Your task to perform on an android device: toggle improve location accuracy Image 0: 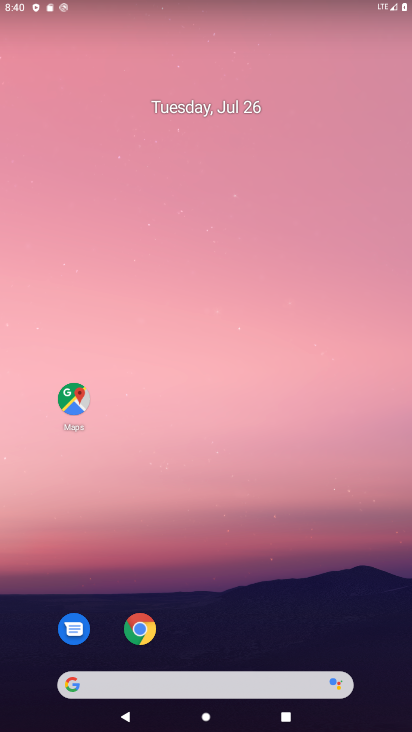
Step 0: drag from (211, 646) to (204, 105)
Your task to perform on an android device: toggle improve location accuracy Image 1: 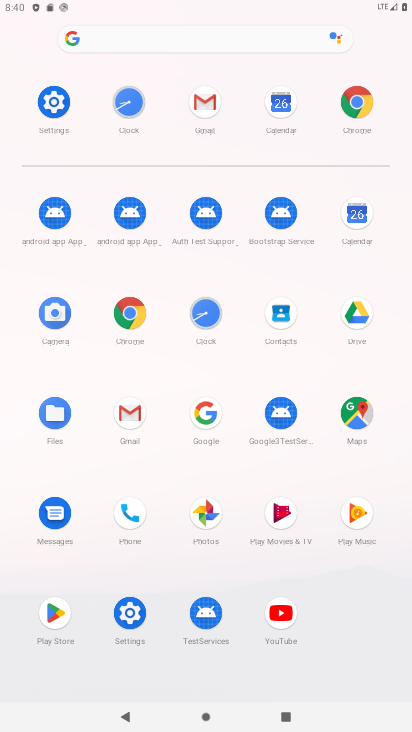
Step 1: click (60, 117)
Your task to perform on an android device: toggle improve location accuracy Image 2: 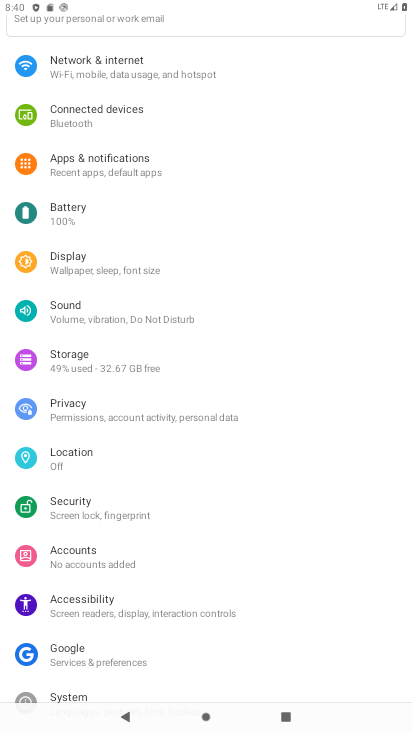
Step 2: click (113, 459)
Your task to perform on an android device: toggle improve location accuracy Image 3: 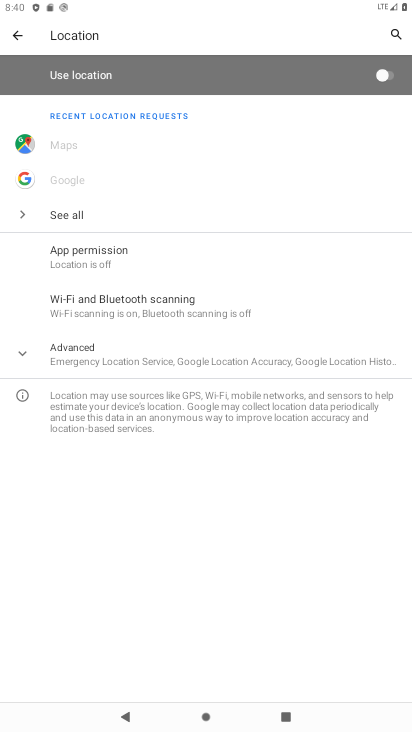
Step 3: click (186, 346)
Your task to perform on an android device: toggle improve location accuracy Image 4: 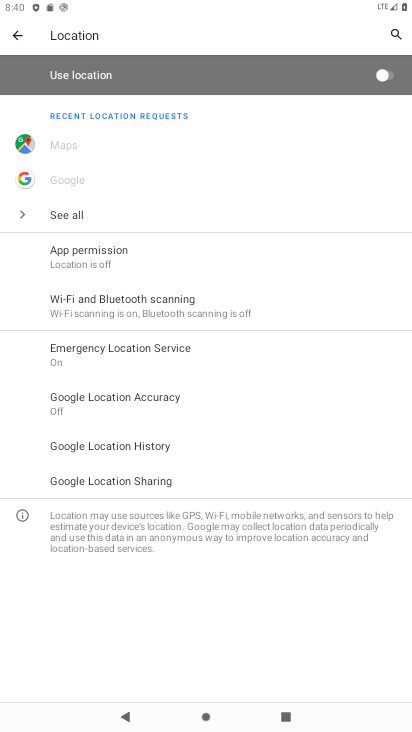
Step 4: click (144, 399)
Your task to perform on an android device: toggle improve location accuracy Image 5: 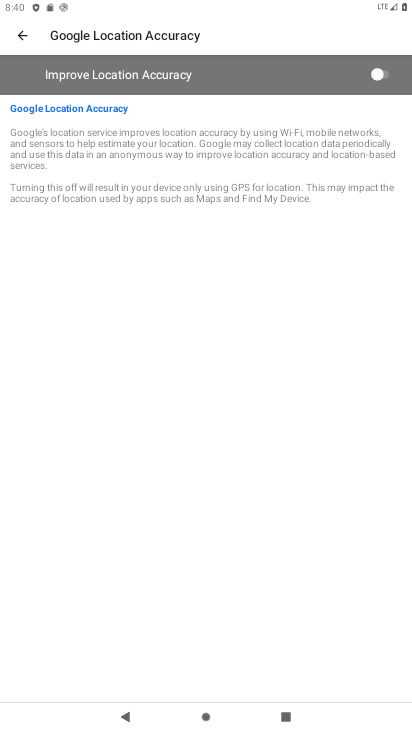
Step 5: click (379, 78)
Your task to perform on an android device: toggle improve location accuracy Image 6: 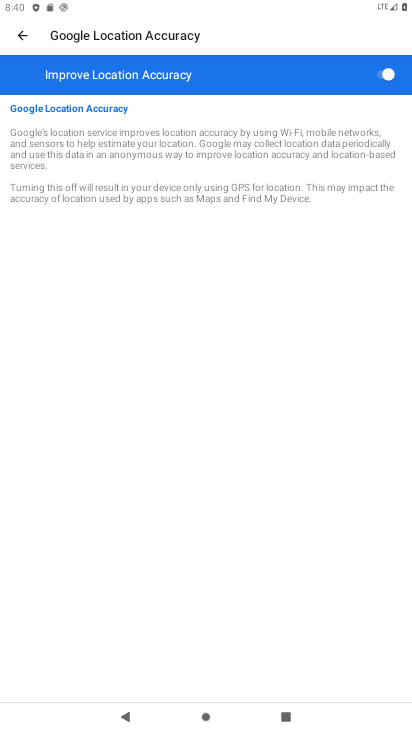
Step 6: task complete